Your task to perform on an android device: change the upload size in google photos Image 0: 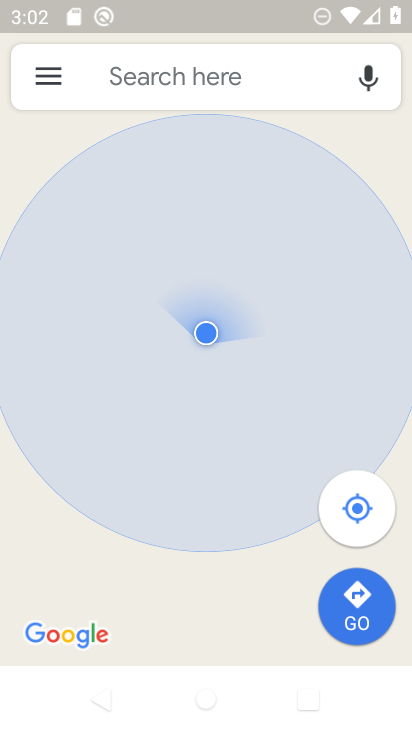
Step 0: press home button
Your task to perform on an android device: change the upload size in google photos Image 1: 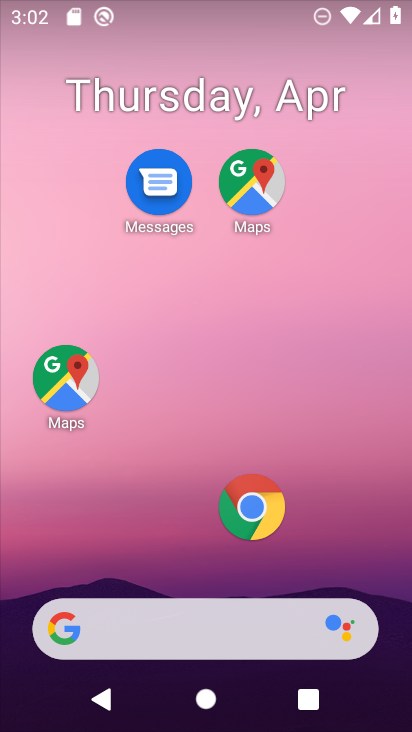
Step 1: drag from (157, 549) to (258, 100)
Your task to perform on an android device: change the upload size in google photos Image 2: 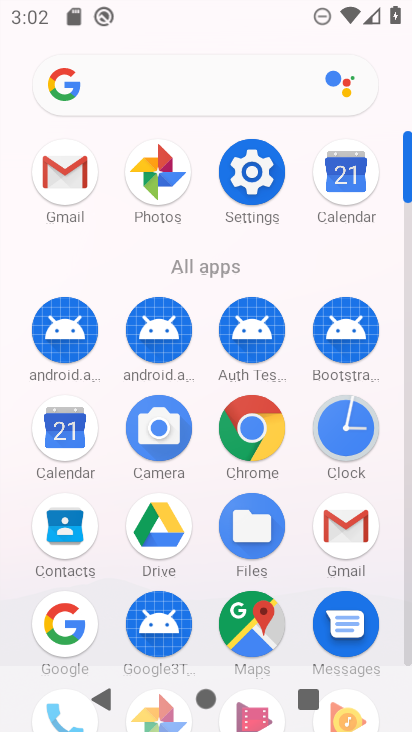
Step 2: drag from (202, 580) to (323, 95)
Your task to perform on an android device: change the upload size in google photos Image 3: 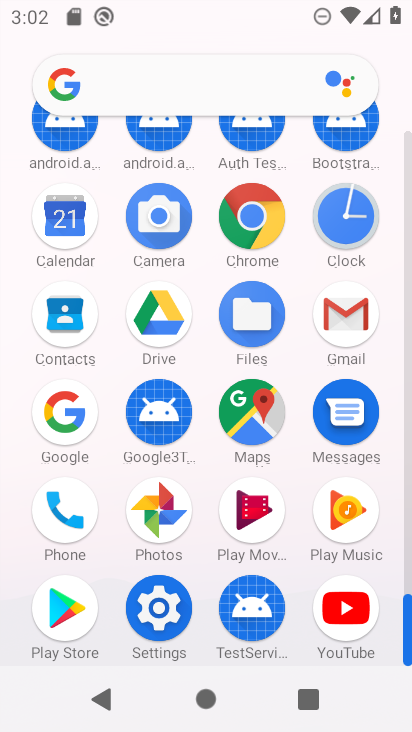
Step 3: click (159, 520)
Your task to perform on an android device: change the upload size in google photos Image 4: 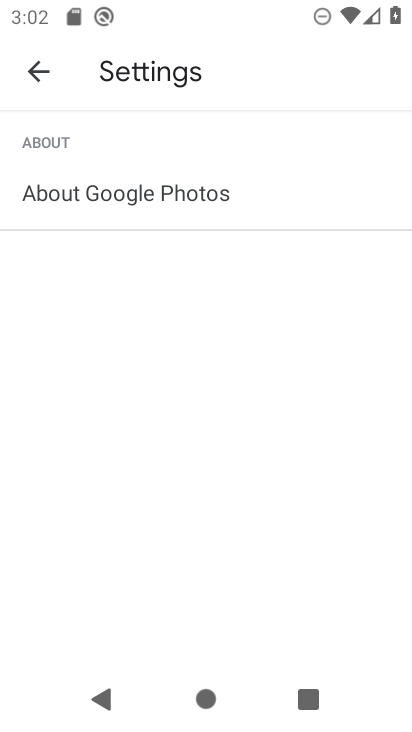
Step 4: click (37, 74)
Your task to perform on an android device: change the upload size in google photos Image 5: 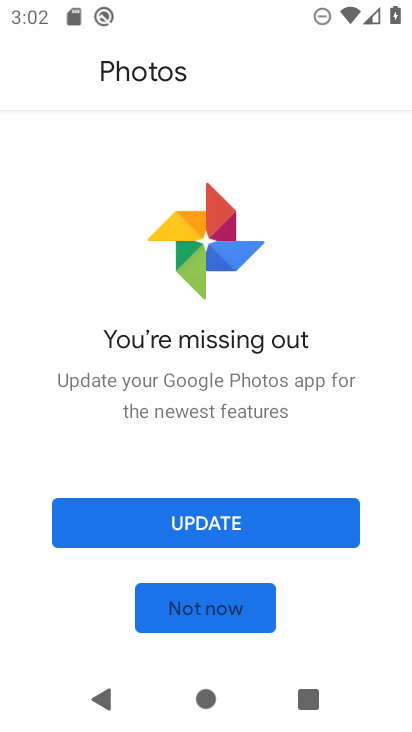
Step 5: click (198, 616)
Your task to perform on an android device: change the upload size in google photos Image 6: 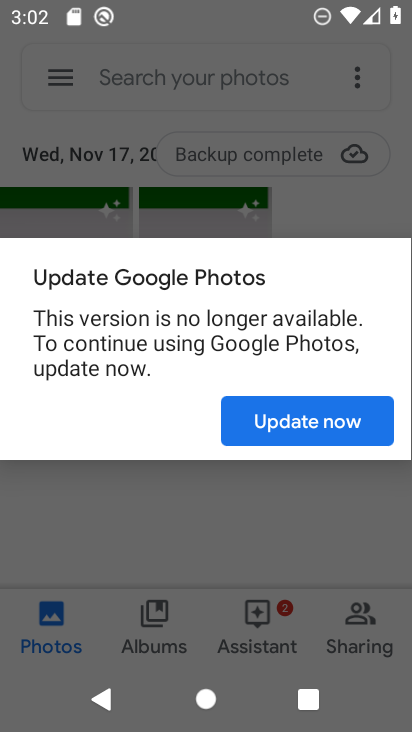
Step 6: click (320, 426)
Your task to perform on an android device: change the upload size in google photos Image 7: 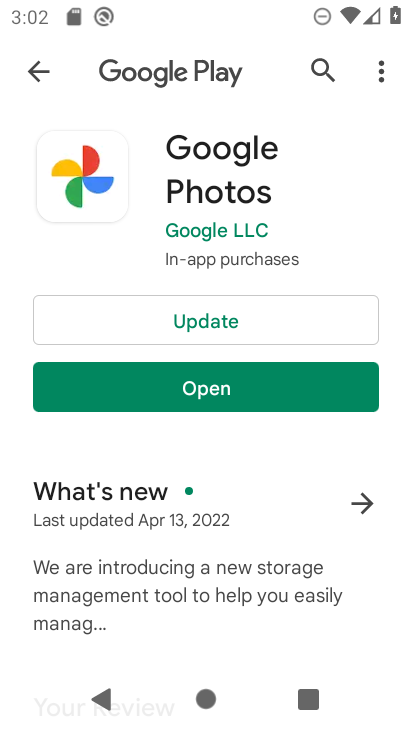
Step 7: click (247, 388)
Your task to perform on an android device: change the upload size in google photos Image 8: 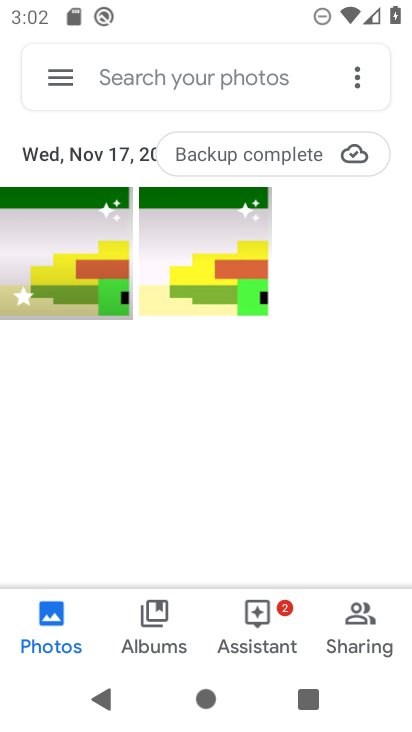
Step 8: click (44, 81)
Your task to perform on an android device: change the upload size in google photos Image 9: 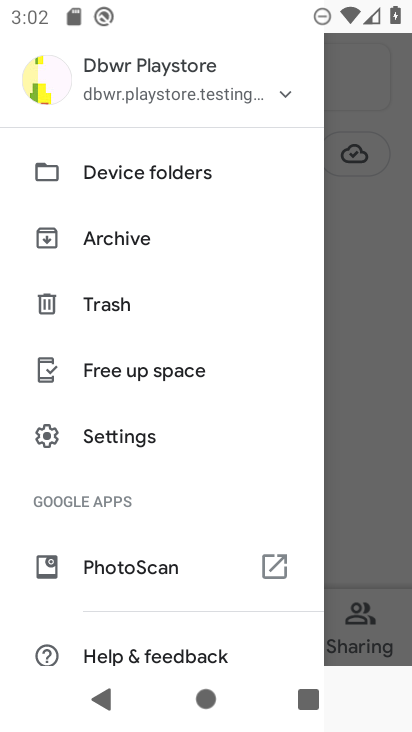
Step 9: click (133, 431)
Your task to perform on an android device: change the upload size in google photos Image 10: 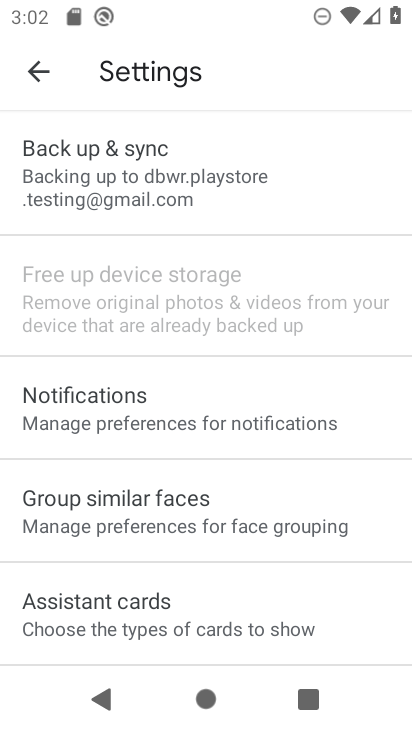
Step 10: click (125, 170)
Your task to perform on an android device: change the upload size in google photos Image 11: 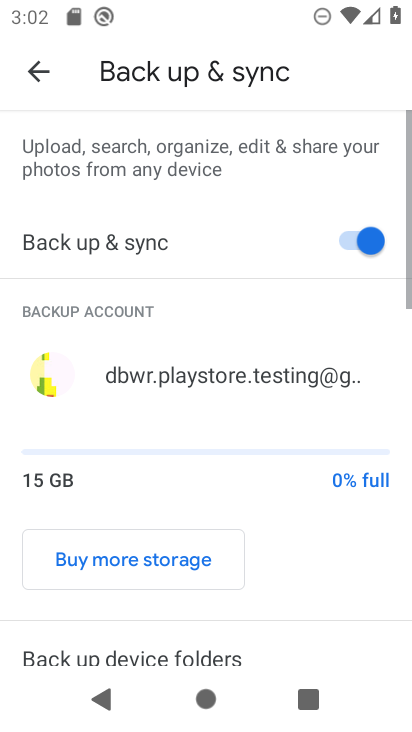
Step 11: drag from (158, 487) to (250, 195)
Your task to perform on an android device: change the upload size in google photos Image 12: 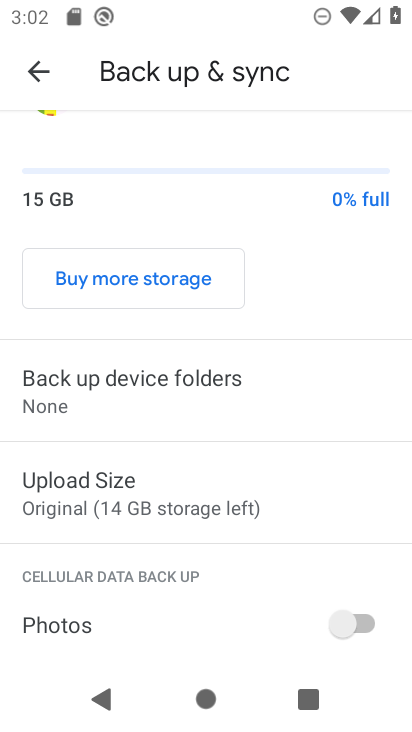
Step 12: click (181, 496)
Your task to perform on an android device: change the upload size in google photos Image 13: 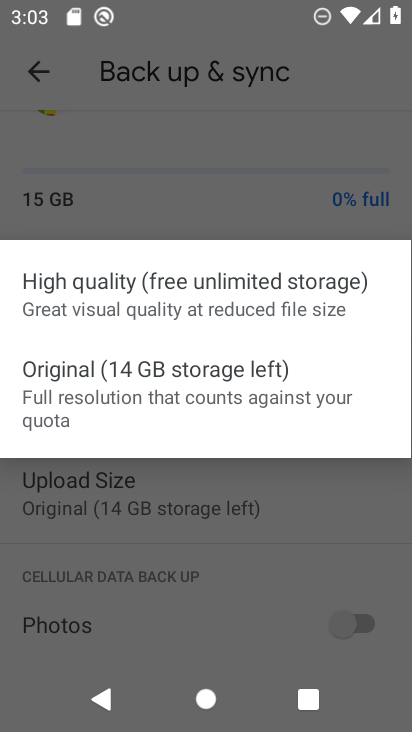
Step 13: click (154, 295)
Your task to perform on an android device: change the upload size in google photos Image 14: 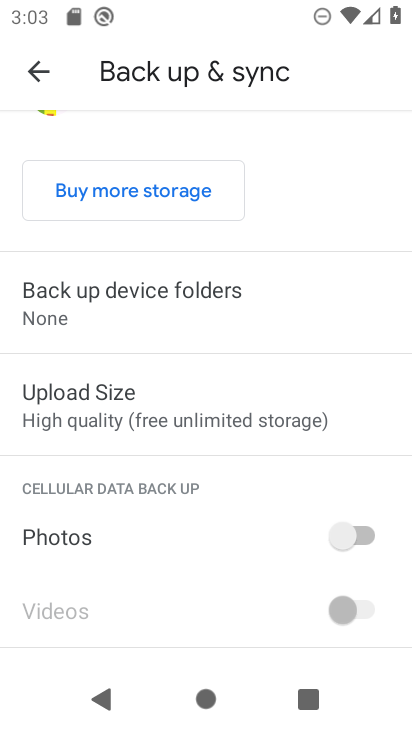
Step 14: task complete